Your task to perform on an android device: Show me productivity apps on the Play Store Image 0: 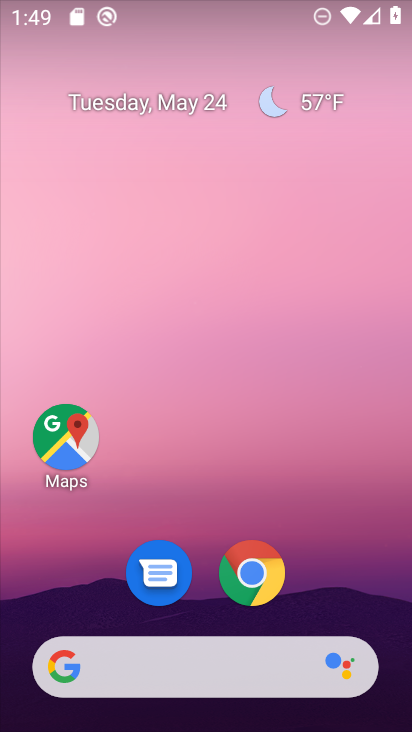
Step 0: drag from (349, 579) to (359, 165)
Your task to perform on an android device: Show me productivity apps on the Play Store Image 1: 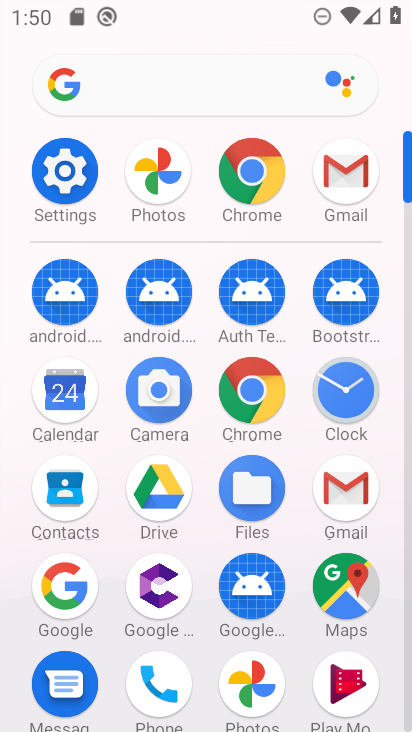
Step 1: drag from (200, 677) to (267, 266)
Your task to perform on an android device: Show me productivity apps on the Play Store Image 2: 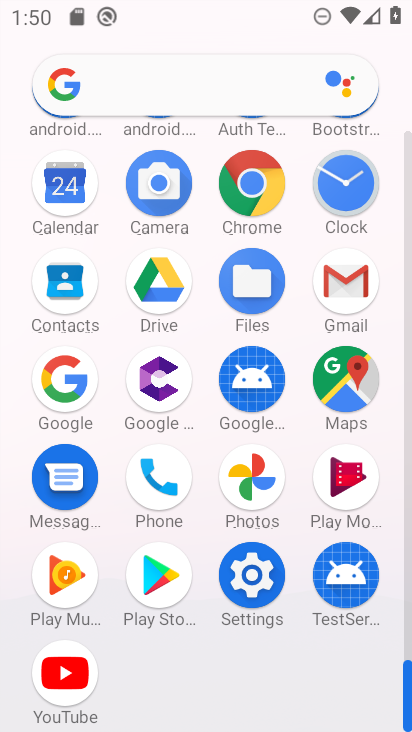
Step 2: click (148, 596)
Your task to perform on an android device: Show me productivity apps on the Play Store Image 3: 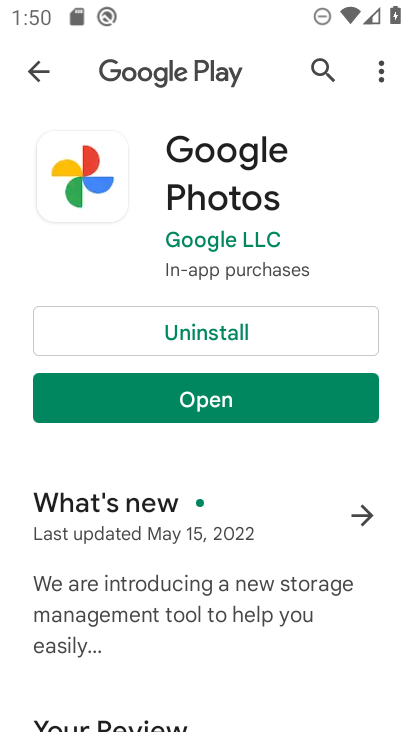
Step 3: click (46, 69)
Your task to perform on an android device: Show me productivity apps on the Play Store Image 4: 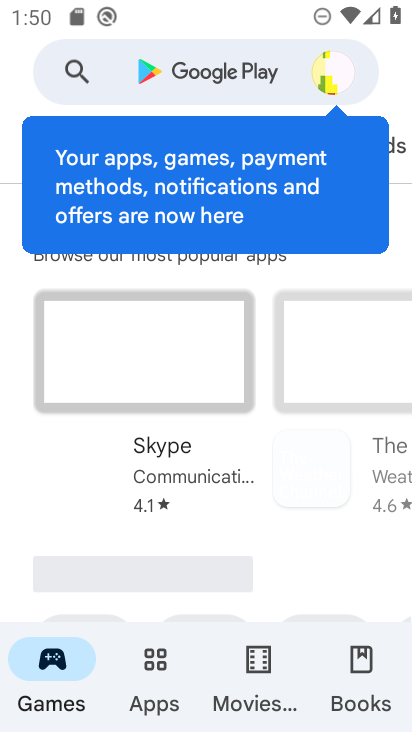
Step 4: click (161, 683)
Your task to perform on an android device: Show me productivity apps on the Play Store Image 5: 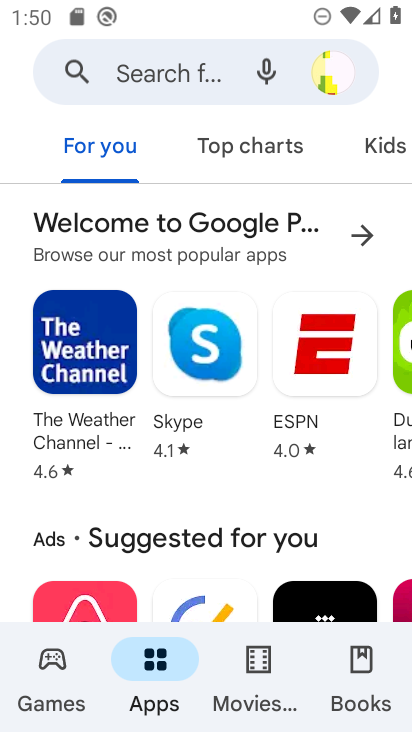
Step 5: drag from (373, 148) to (7, 169)
Your task to perform on an android device: Show me productivity apps on the Play Store Image 6: 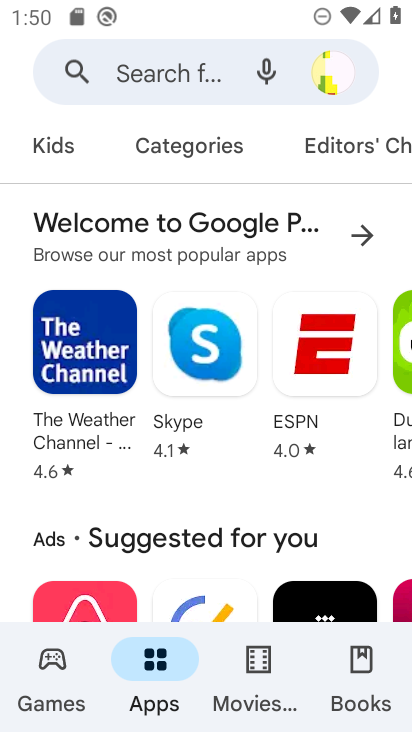
Step 6: click (152, 151)
Your task to perform on an android device: Show me productivity apps on the Play Store Image 7: 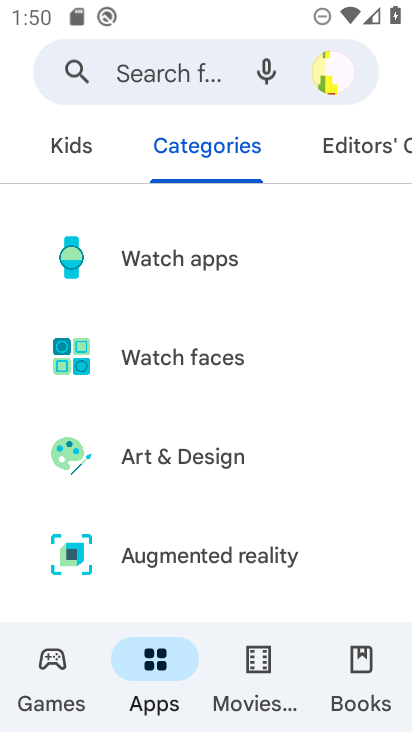
Step 7: drag from (211, 558) to (248, 266)
Your task to perform on an android device: Show me productivity apps on the Play Store Image 8: 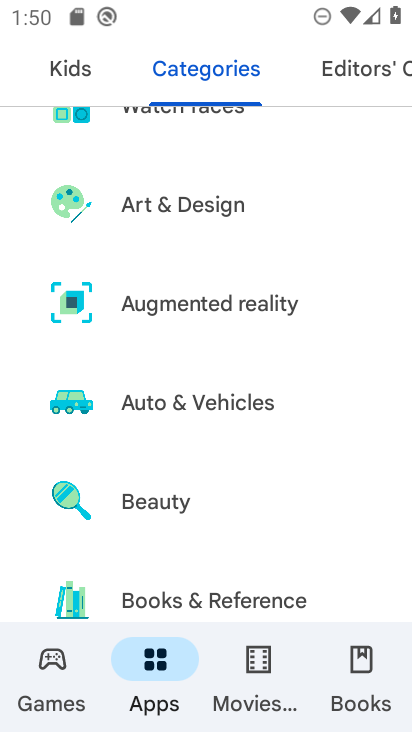
Step 8: drag from (253, 556) to (308, 229)
Your task to perform on an android device: Show me productivity apps on the Play Store Image 9: 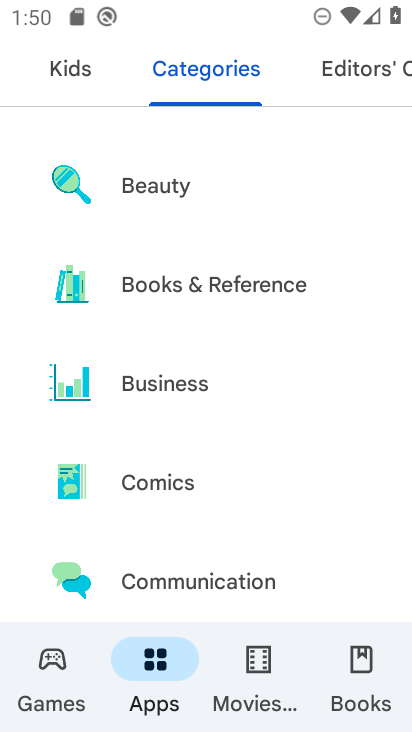
Step 9: drag from (261, 544) to (337, 190)
Your task to perform on an android device: Show me productivity apps on the Play Store Image 10: 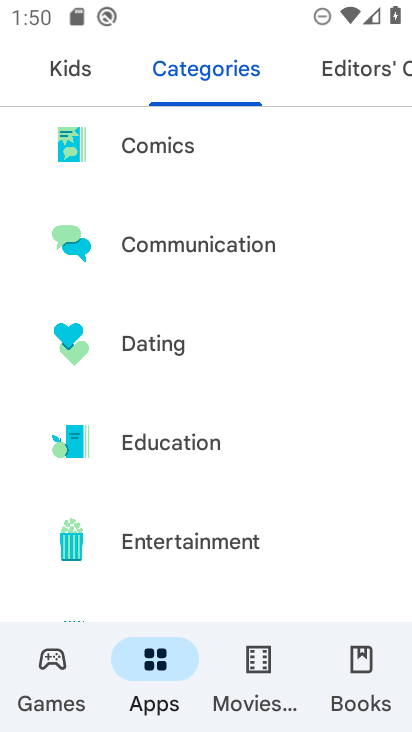
Step 10: drag from (242, 547) to (326, 221)
Your task to perform on an android device: Show me productivity apps on the Play Store Image 11: 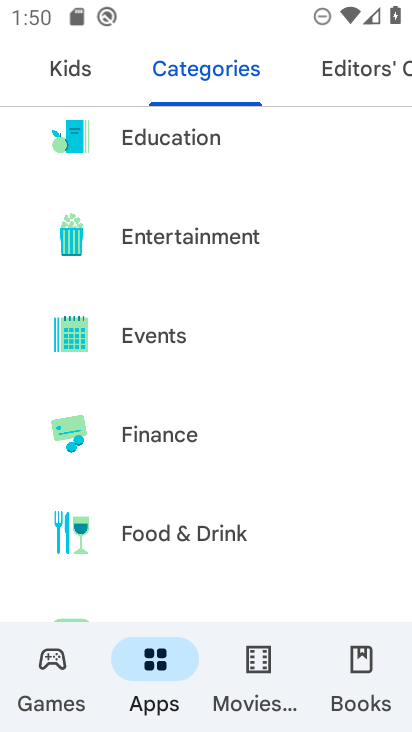
Step 11: drag from (262, 538) to (352, 192)
Your task to perform on an android device: Show me productivity apps on the Play Store Image 12: 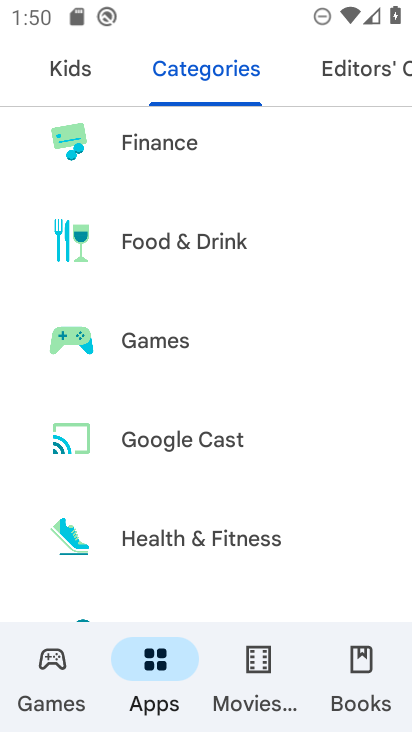
Step 12: drag from (268, 582) to (351, 200)
Your task to perform on an android device: Show me productivity apps on the Play Store Image 13: 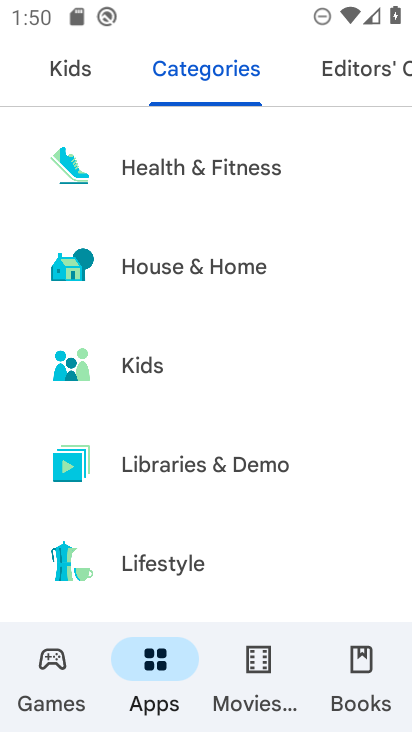
Step 13: drag from (260, 554) to (352, 208)
Your task to perform on an android device: Show me productivity apps on the Play Store Image 14: 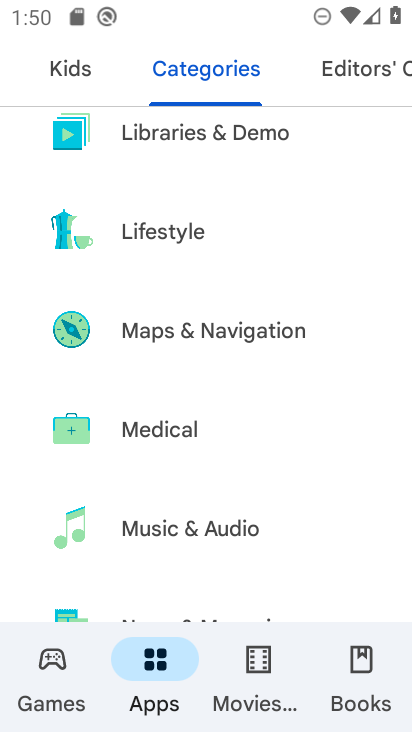
Step 14: drag from (281, 572) to (363, 196)
Your task to perform on an android device: Show me productivity apps on the Play Store Image 15: 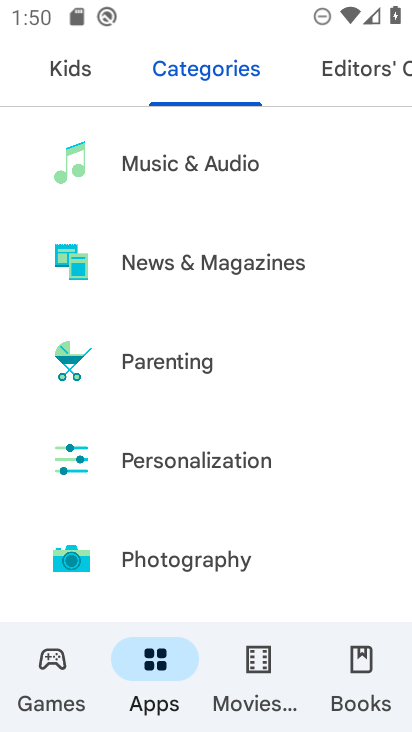
Step 15: drag from (272, 573) to (348, 236)
Your task to perform on an android device: Show me productivity apps on the Play Store Image 16: 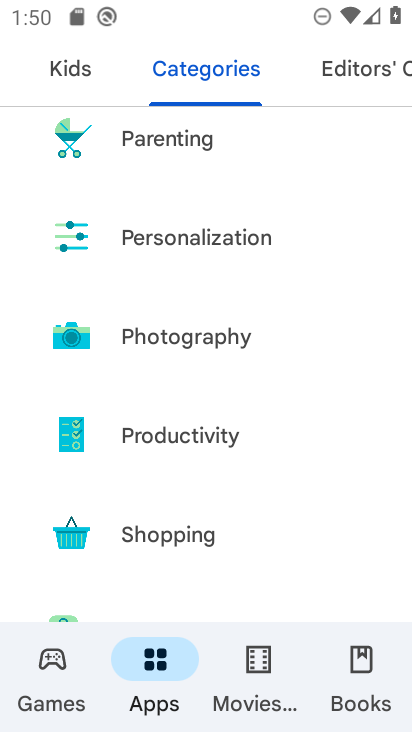
Step 16: click (221, 442)
Your task to perform on an android device: Show me productivity apps on the Play Store Image 17: 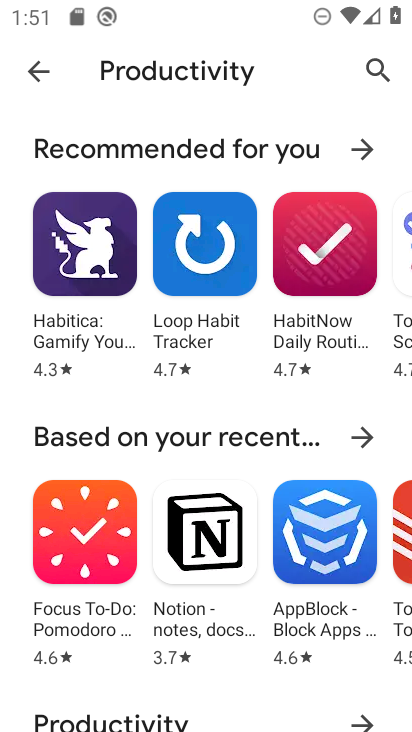
Step 17: task complete